Your task to perform on an android device: refresh tabs in the chrome app Image 0: 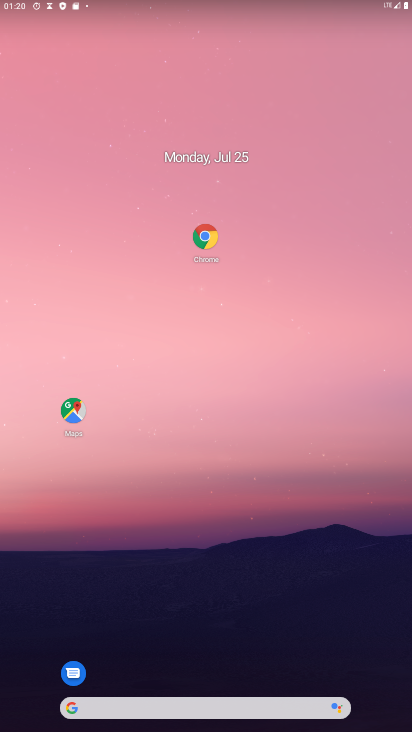
Step 0: drag from (317, 655) to (402, 37)
Your task to perform on an android device: refresh tabs in the chrome app Image 1: 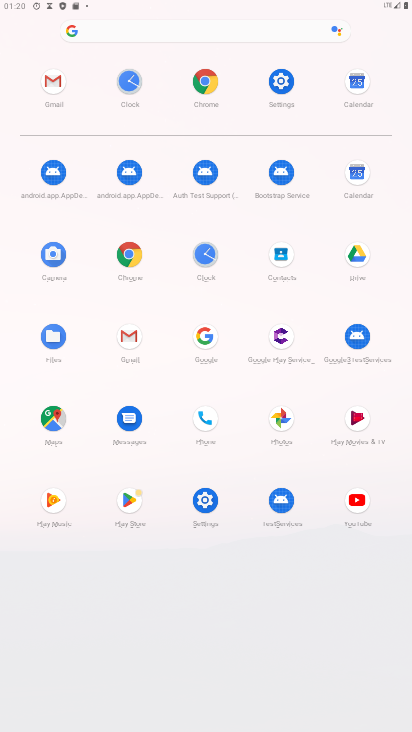
Step 1: click (131, 243)
Your task to perform on an android device: refresh tabs in the chrome app Image 2: 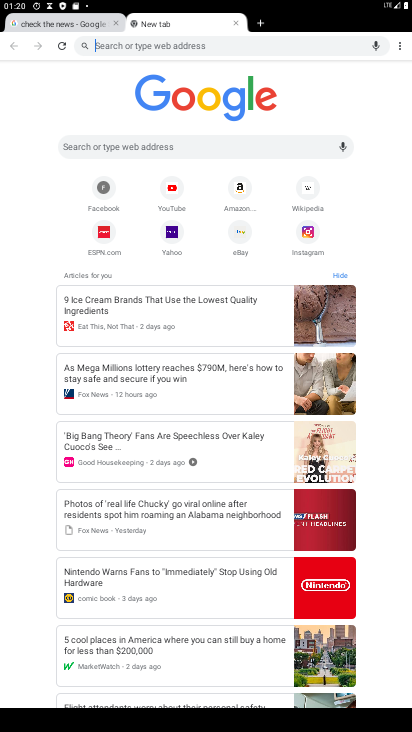
Step 2: task complete